Your task to perform on an android device: change keyboard looks Image 0: 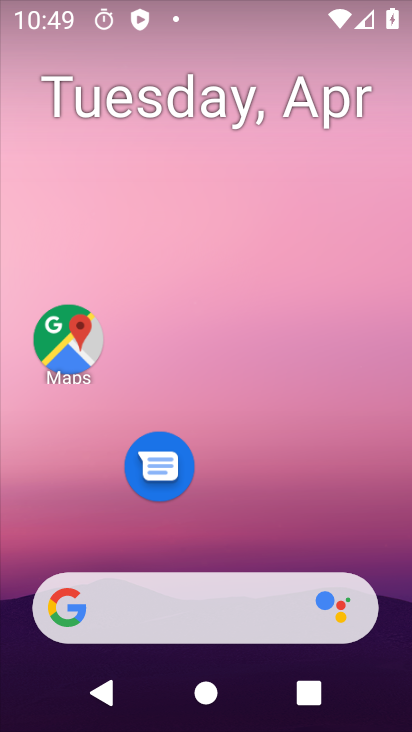
Step 0: drag from (226, 435) to (223, 23)
Your task to perform on an android device: change keyboard looks Image 1: 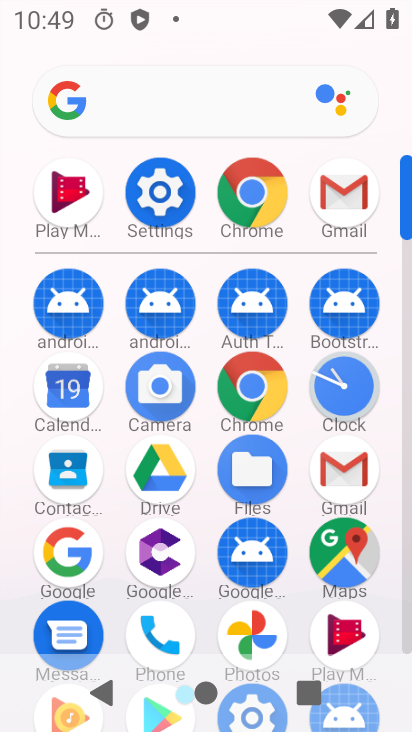
Step 1: click (409, 358)
Your task to perform on an android device: change keyboard looks Image 2: 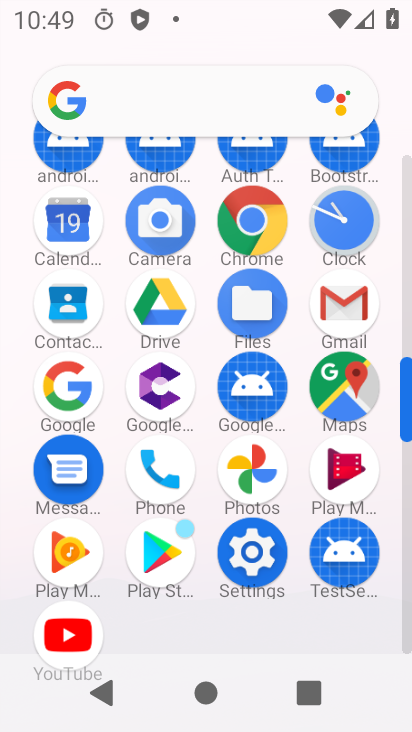
Step 2: click (273, 565)
Your task to perform on an android device: change keyboard looks Image 3: 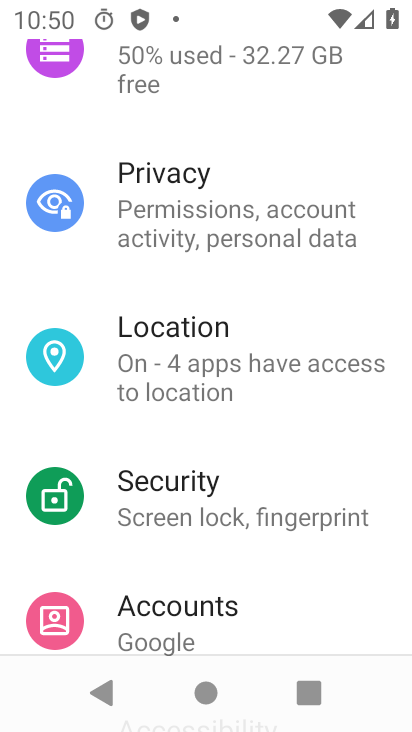
Step 3: drag from (303, 610) to (293, 177)
Your task to perform on an android device: change keyboard looks Image 4: 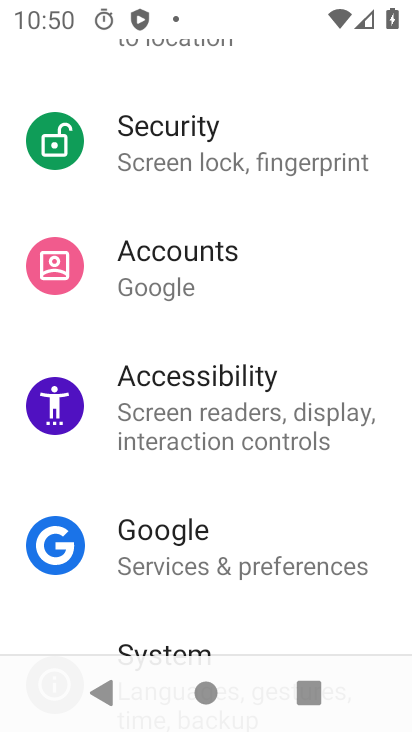
Step 4: drag from (274, 514) to (333, 68)
Your task to perform on an android device: change keyboard looks Image 5: 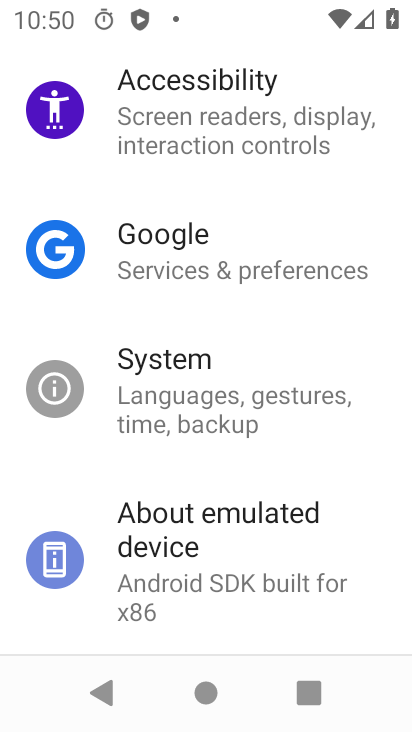
Step 5: click (244, 413)
Your task to perform on an android device: change keyboard looks Image 6: 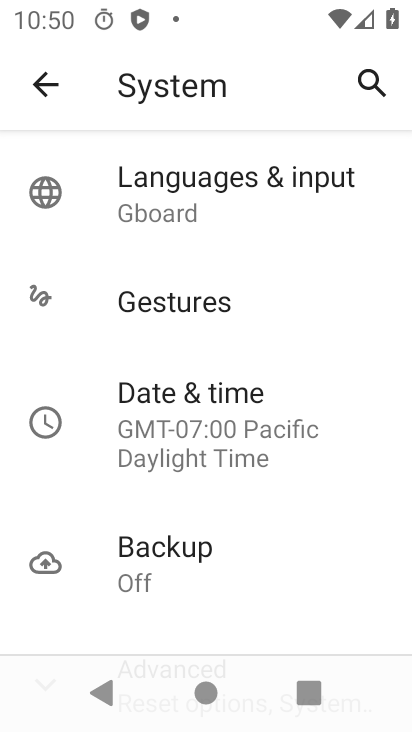
Step 6: click (238, 213)
Your task to perform on an android device: change keyboard looks Image 7: 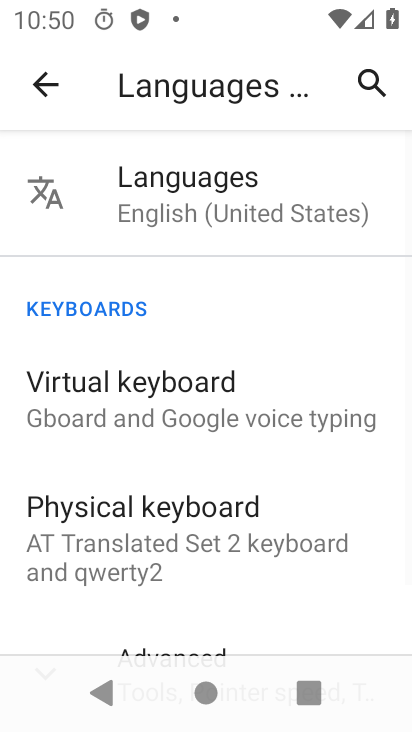
Step 7: click (139, 379)
Your task to perform on an android device: change keyboard looks Image 8: 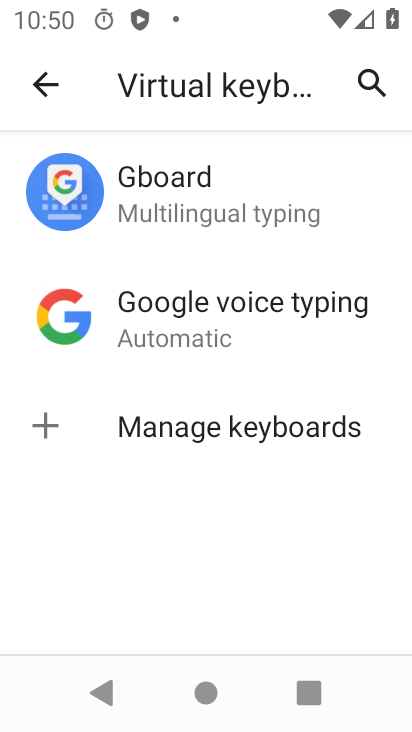
Step 8: click (163, 202)
Your task to perform on an android device: change keyboard looks Image 9: 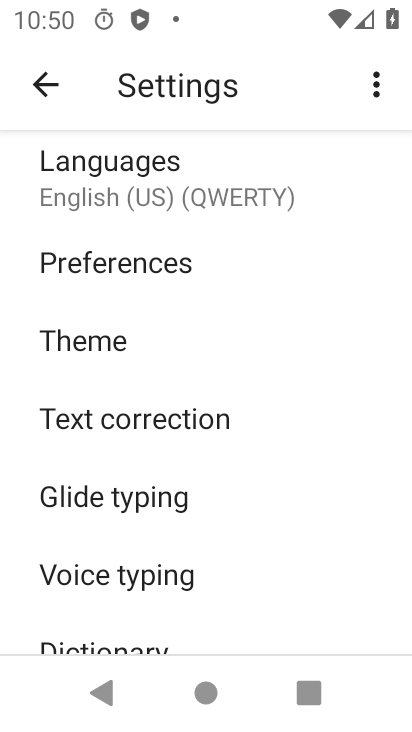
Step 9: click (99, 194)
Your task to perform on an android device: change keyboard looks Image 10: 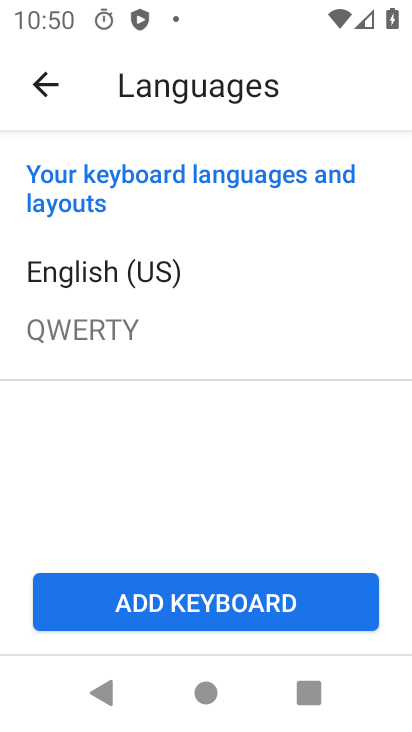
Step 10: click (57, 77)
Your task to perform on an android device: change keyboard looks Image 11: 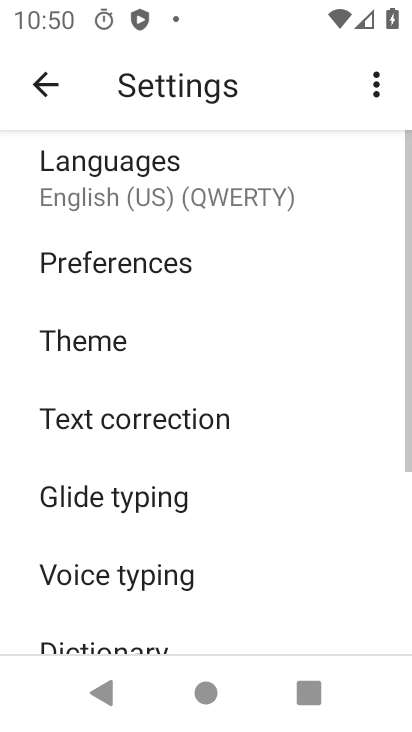
Step 11: click (123, 331)
Your task to perform on an android device: change keyboard looks Image 12: 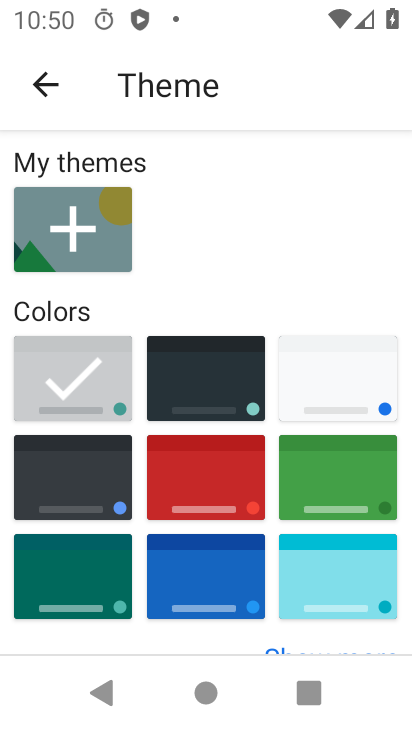
Step 12: click (218, 384)
Your task to perform on an android device: change keyboard looks Image 13: 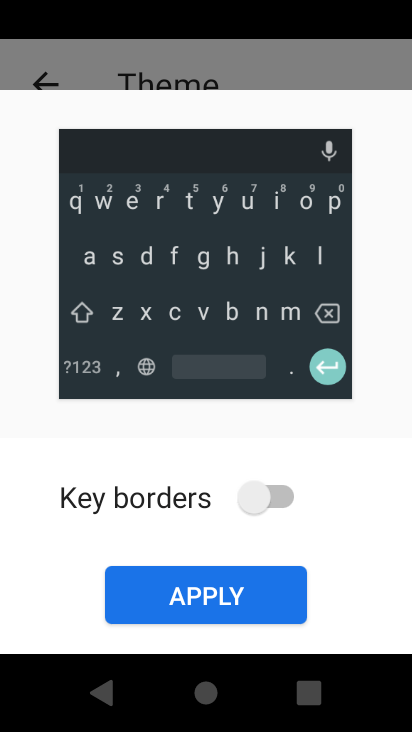
Step 13: click (183, 601)
Your task to perform on an android device: change keyboard looks Image 14: 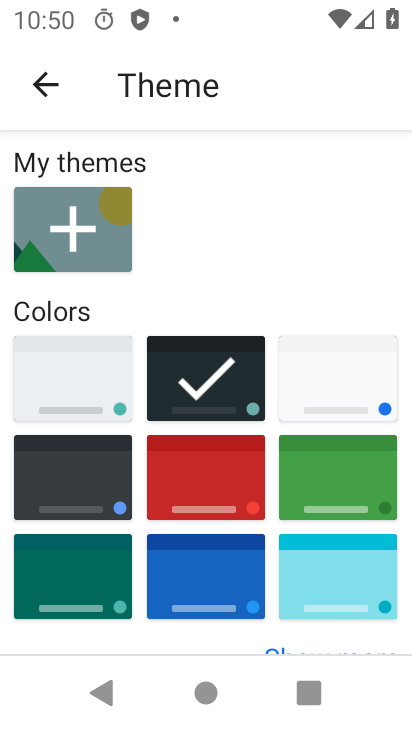
Step 14: task complete